Your task to perform on an android device: Open Google Chrome and open the bookmarks view Image 0: 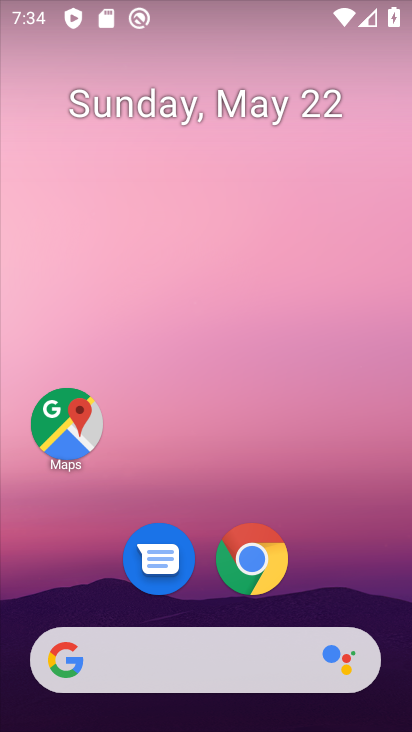
Step 0: click (265, 555)
Your task to perform on an android device: Open Google Chrome and open the bookmarks view Image 1: 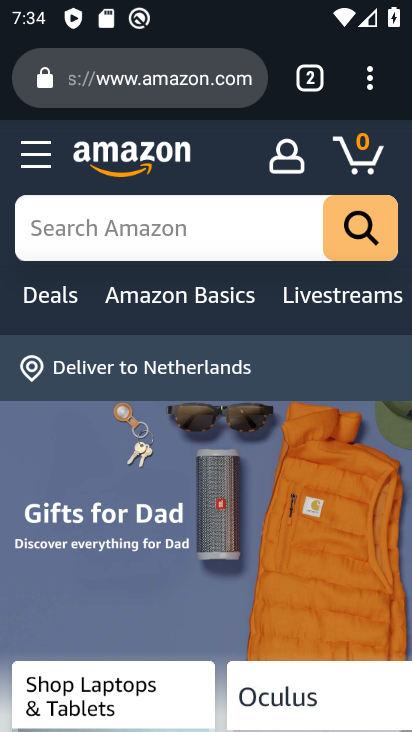
Step 1: click (375, 83)
Your task to perform on an android device: Open Google Chrome and open the bookmarks view Image 2: 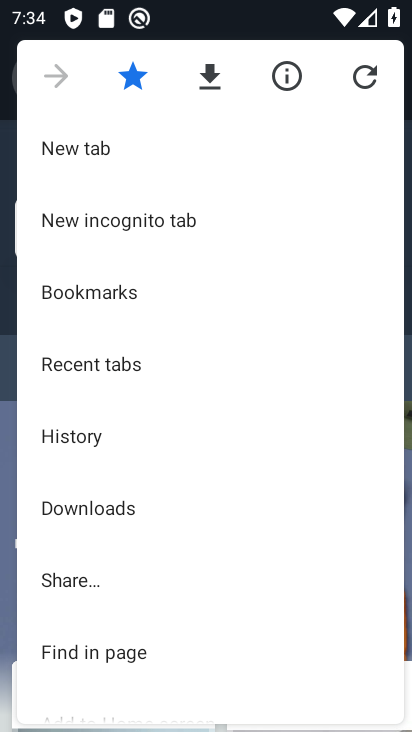
Step 2: click (130, 282)
Your task to perform on an android device: Open Google Chrome and open the bookmarks view Image 3: 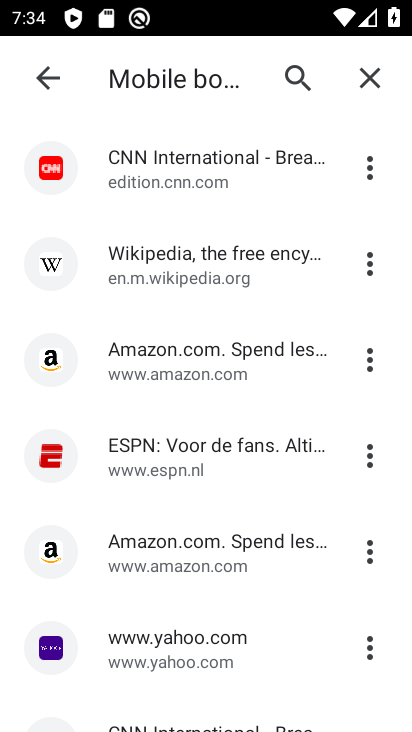
Step 3: task complete